Your task to perform on an android device: turn off picture-in-picture Image 0: 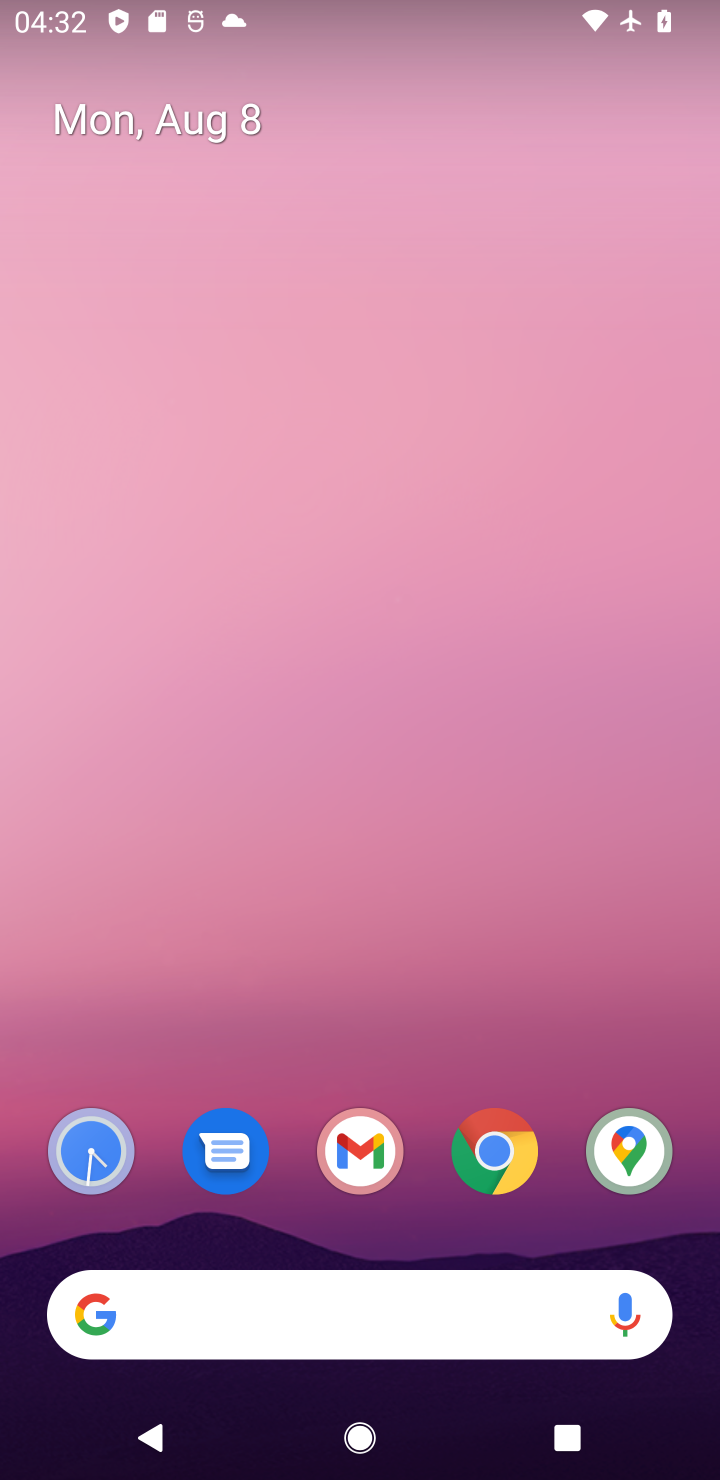
Step 0: click (478, 1182)
Your task to perform on an android device: turn off picture-in-picture Image 1: 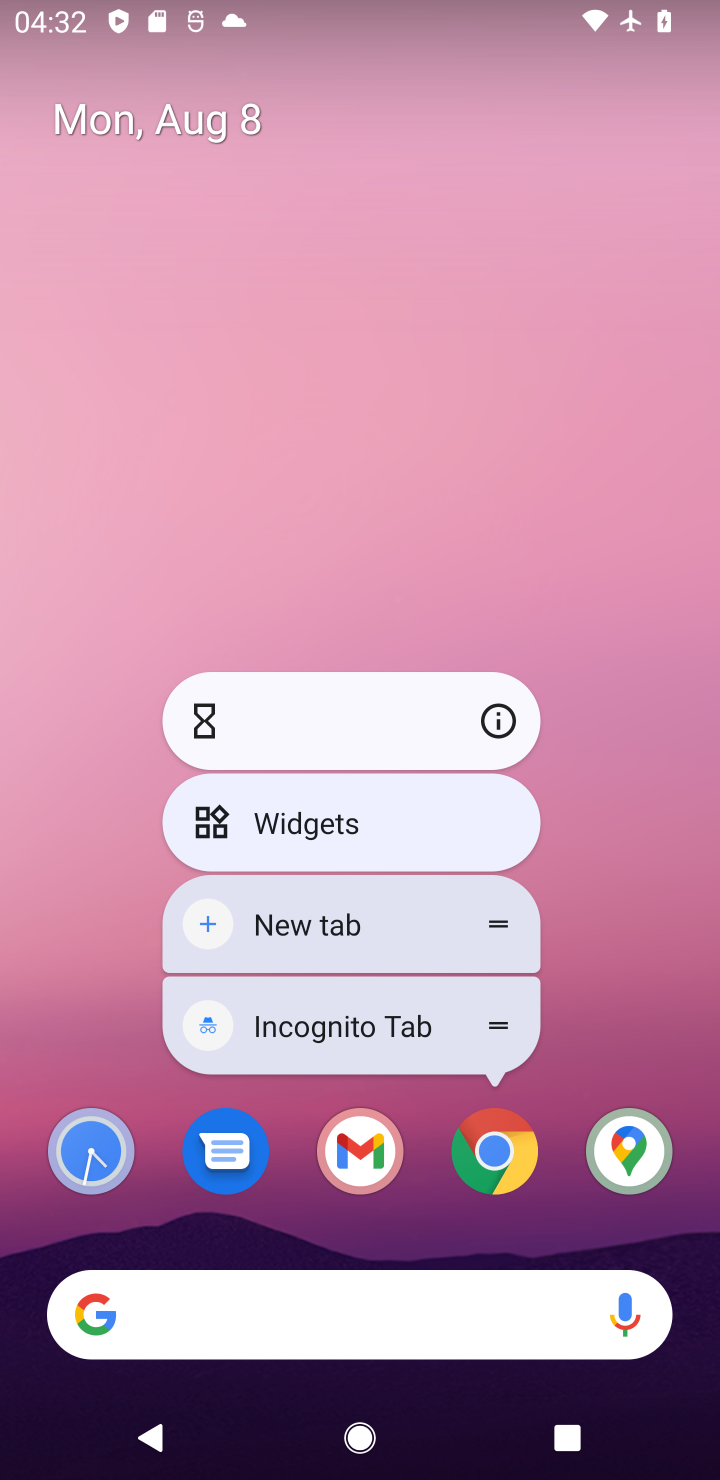
Step 1: click (502, 737)
Your task to perform on an android device: turn off picture-in-picture Image 2: 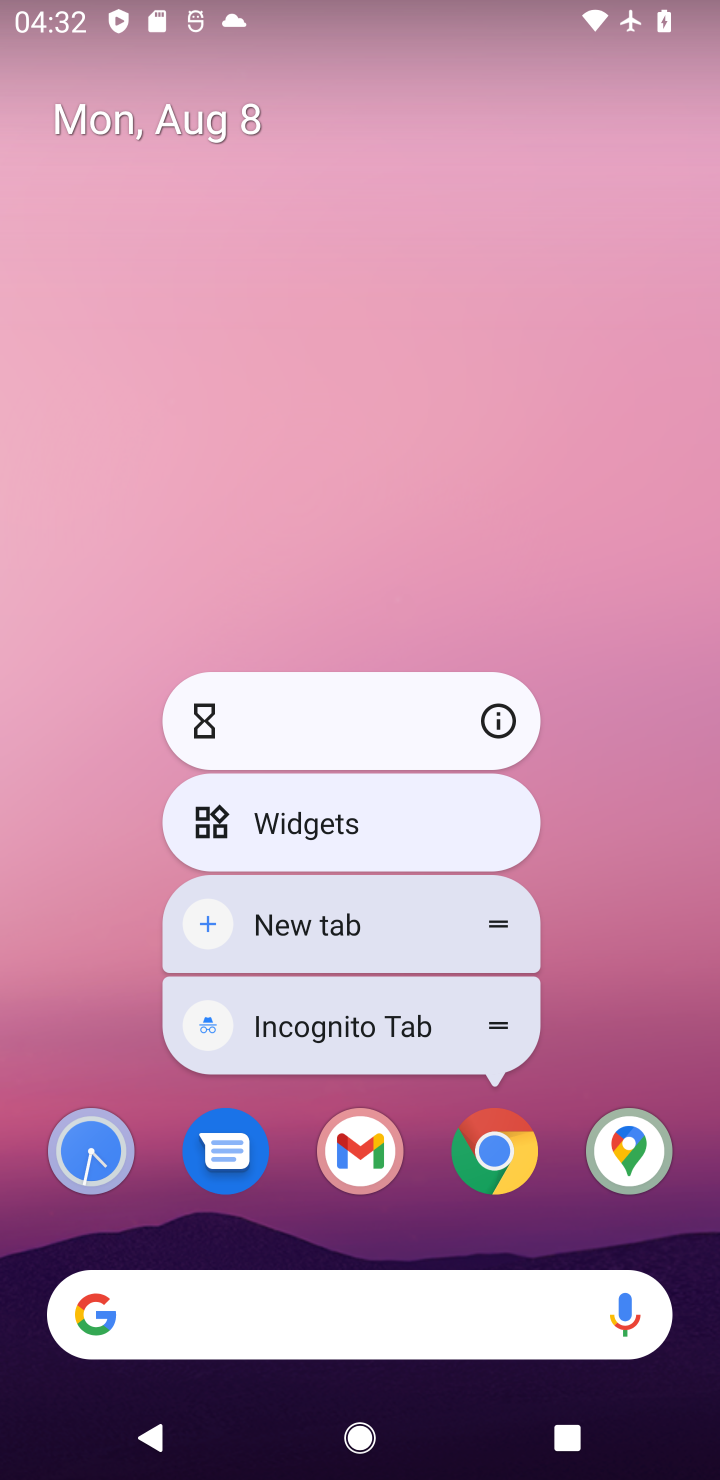
Step 2: click (505, 721)
Your task to perform on an android device: turn off picture-in-picture Image 3: 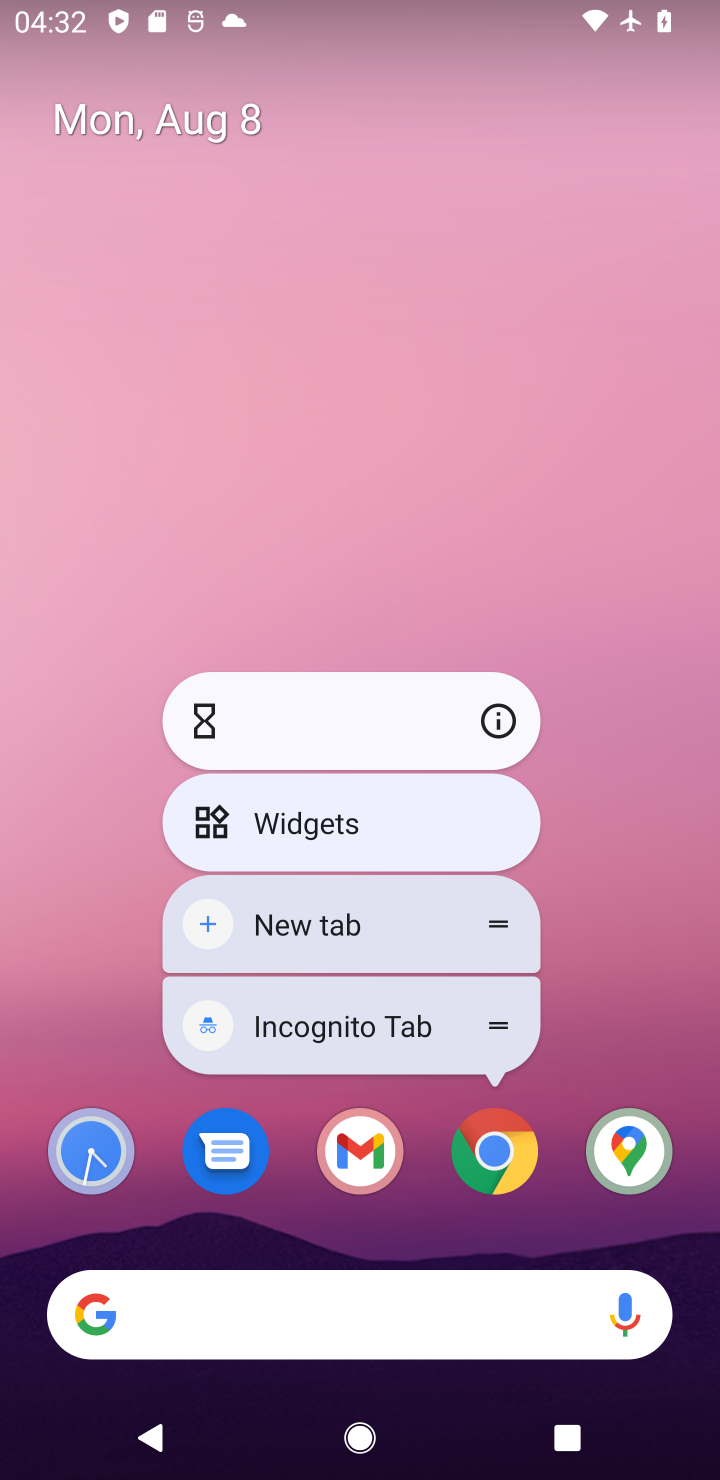
Step 3: click (503, 721)
Your task to perform on an android device: turn off picture-in-picture Image 4: 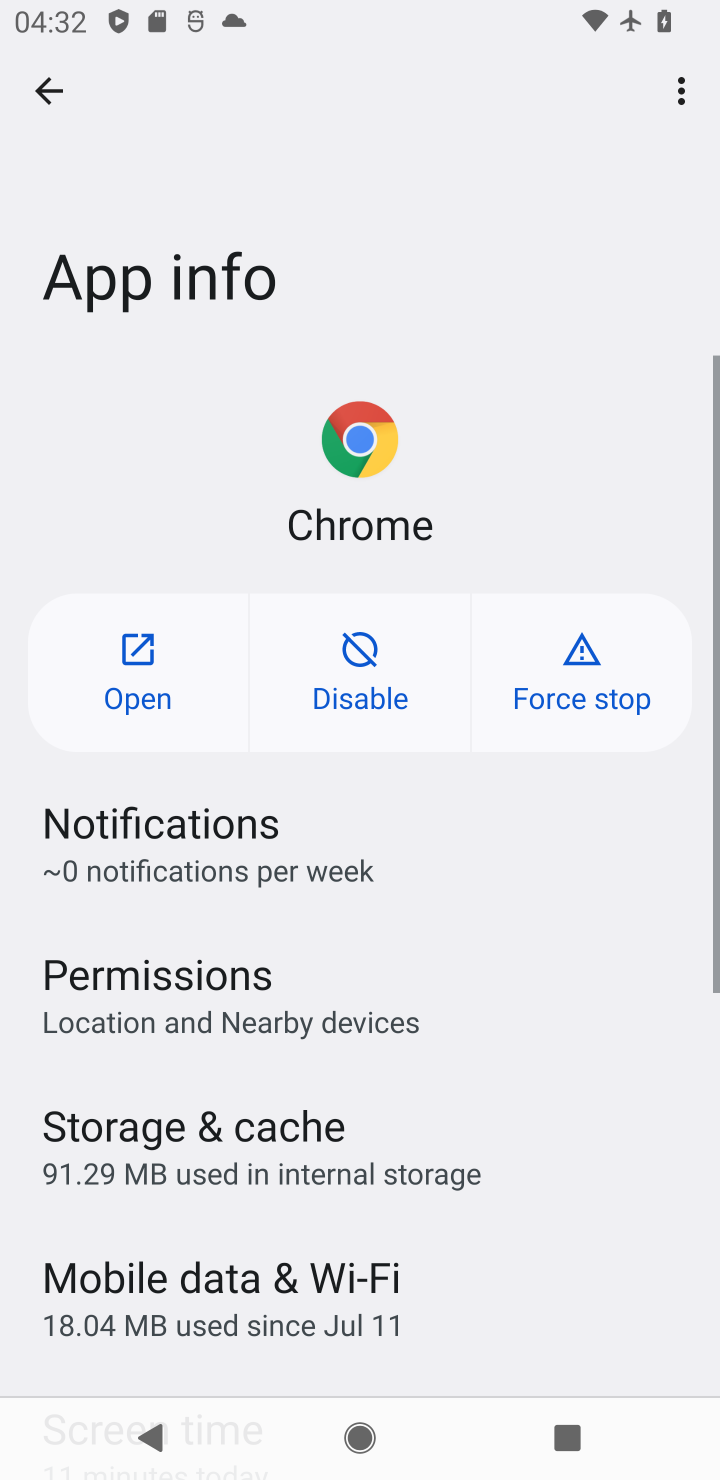
Step 4: drag from (360, 1200) to (361, 302)
Your task to perform on an android device: turn off picture-in-picture Image 5: 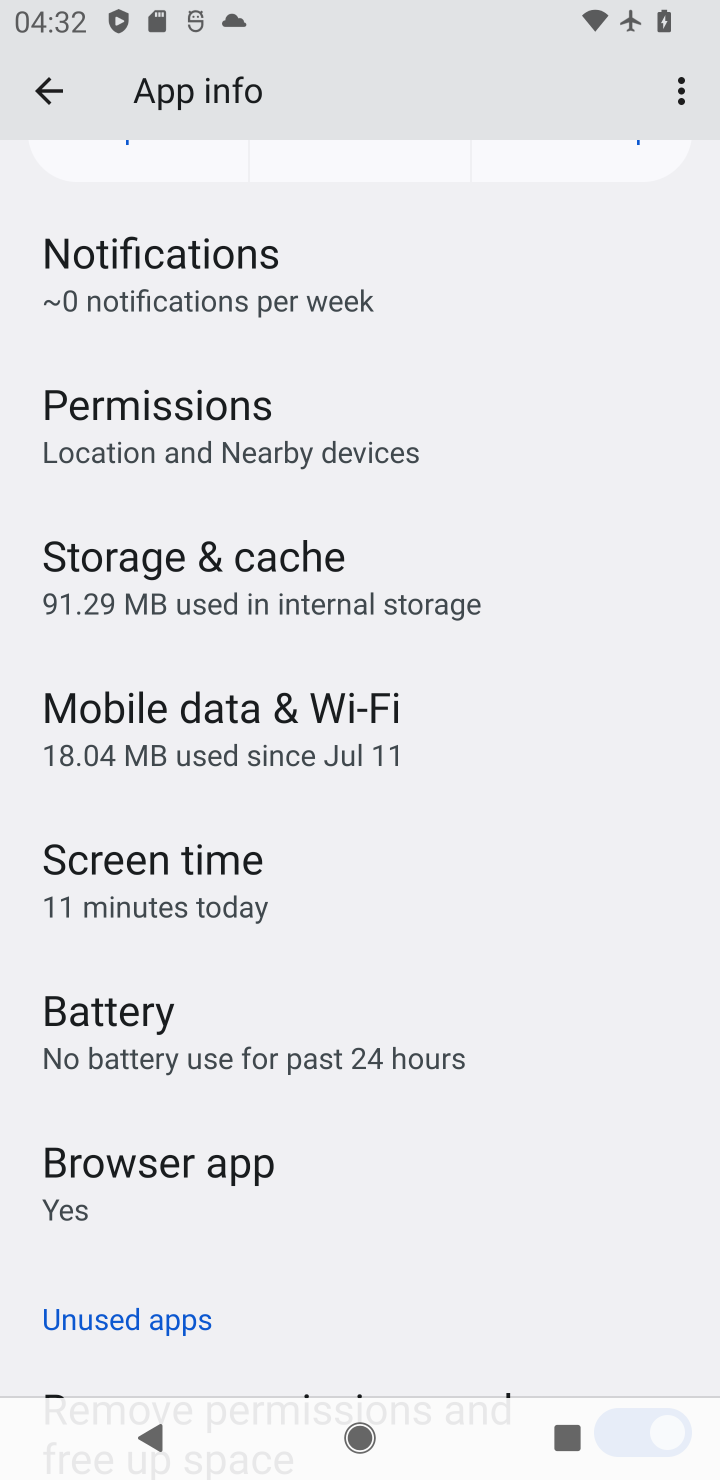
Step 5: drag from (288, 1242) to (272, 456)
Your task to perform on an android device: turn off picture-in-picture Image 6: 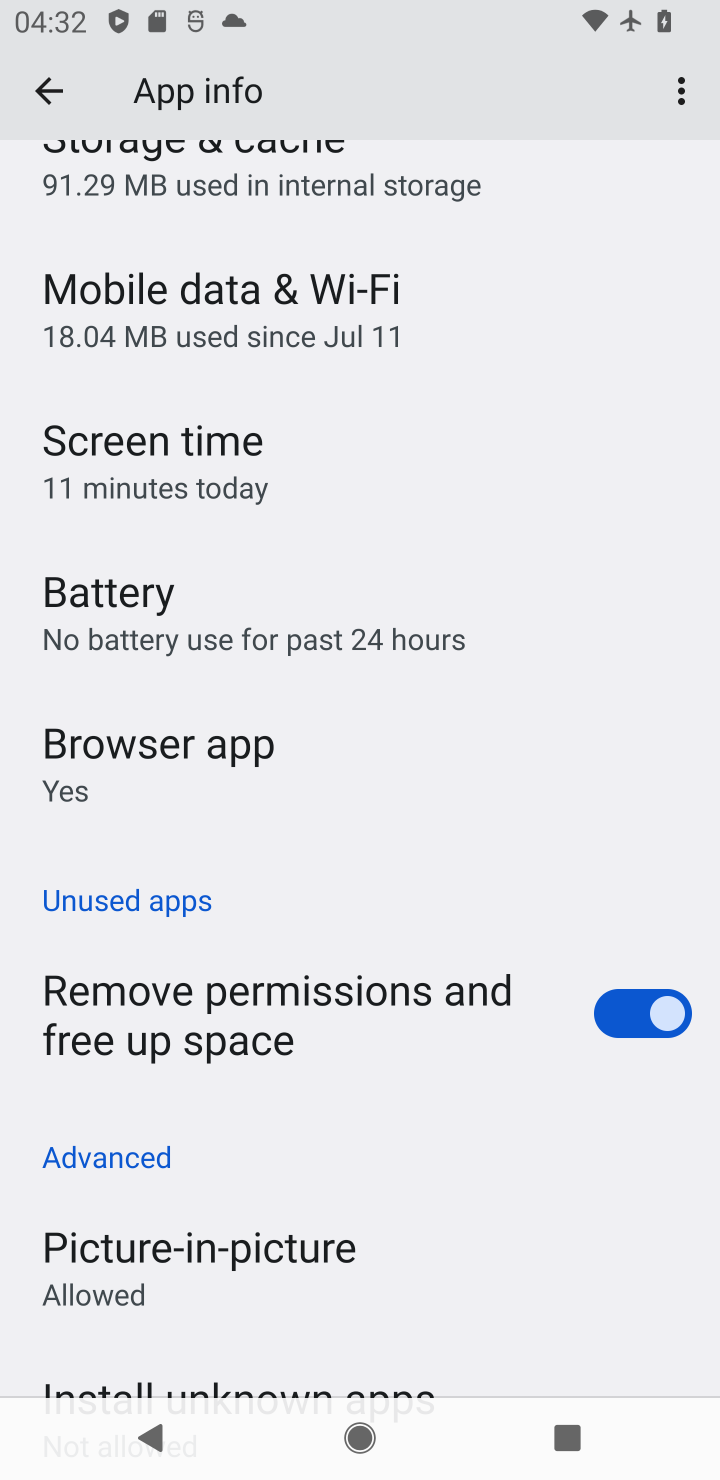
Step 6: click (303, 1255)
Your task to perform on an android device: turn off picture-in-picture Image 7: 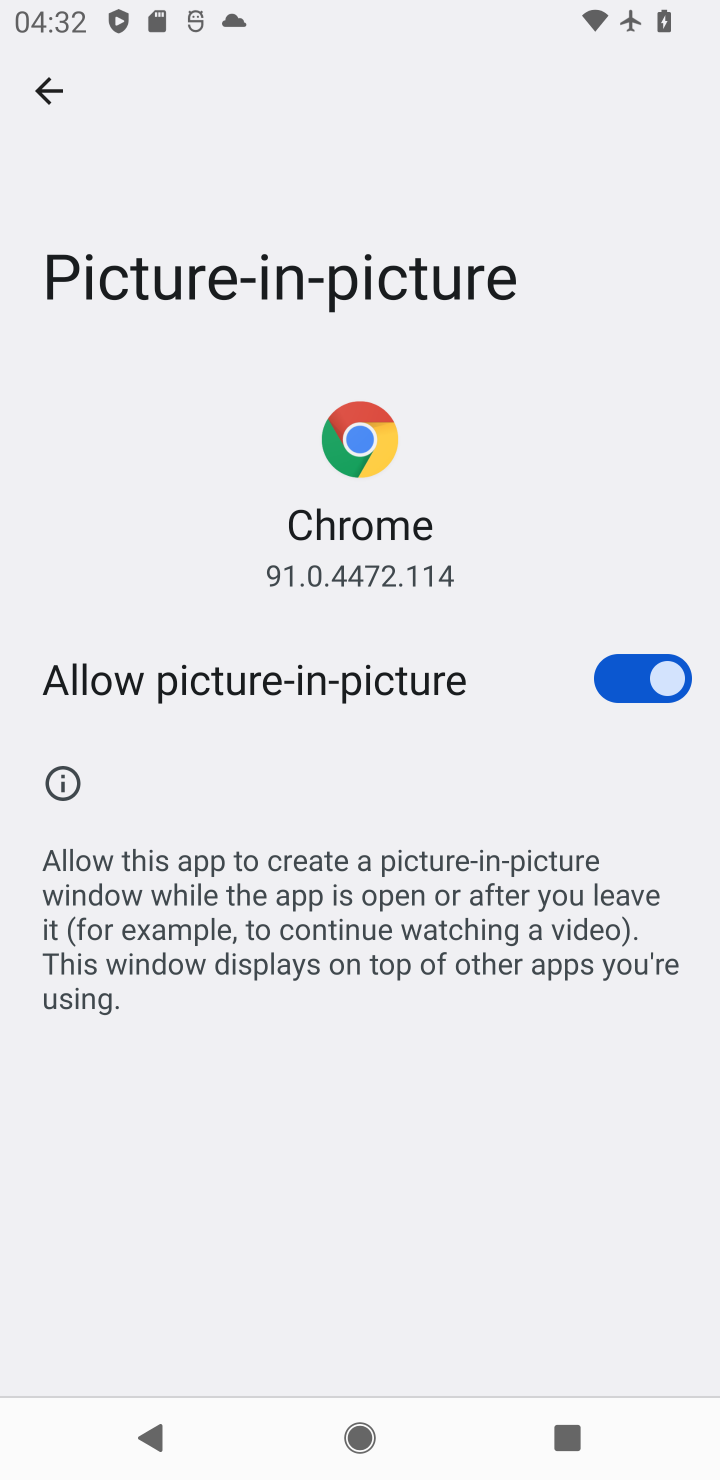
Step 7: click (648, 695)
Your task to perform on an android device: turn off picture-in-picture Image 8: 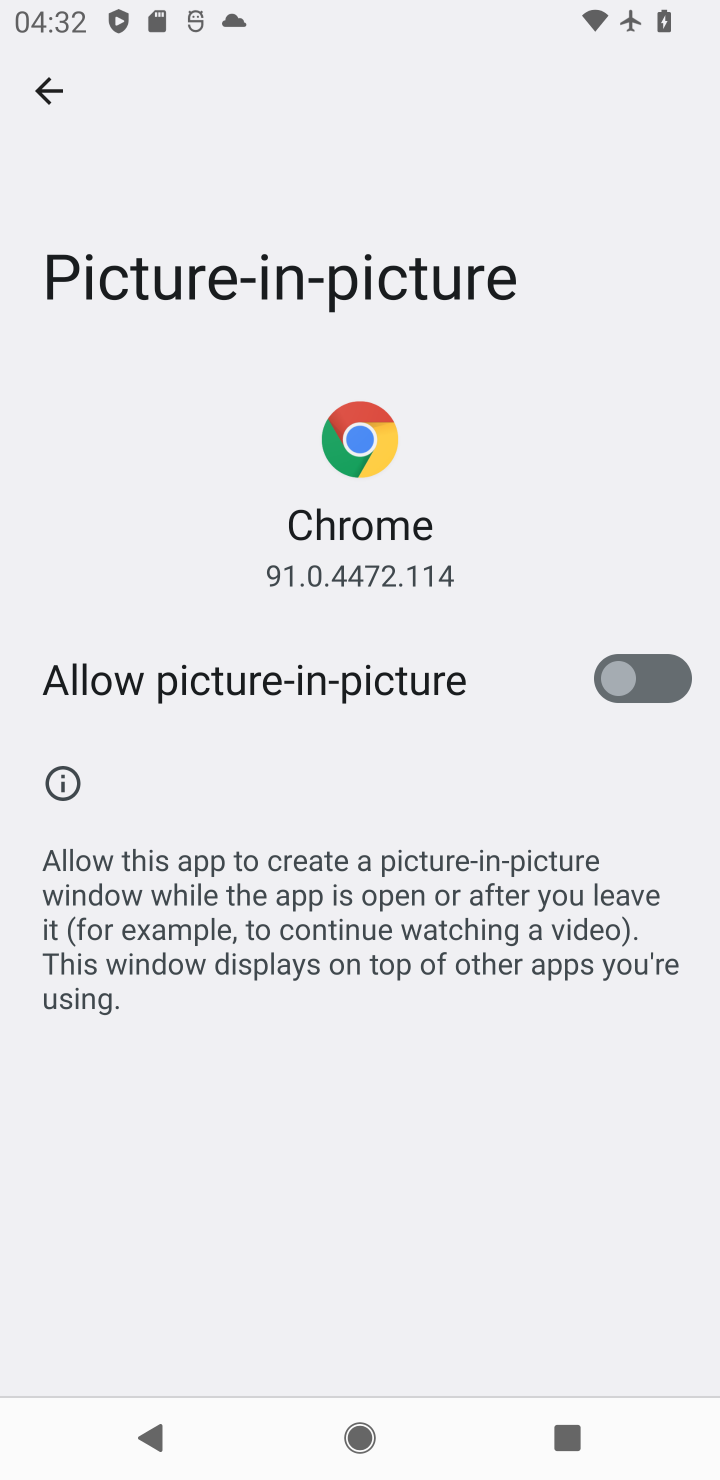
Step 8: task complete